Your task to perform on an android device: open a bookmark in the chrome app Image 0: 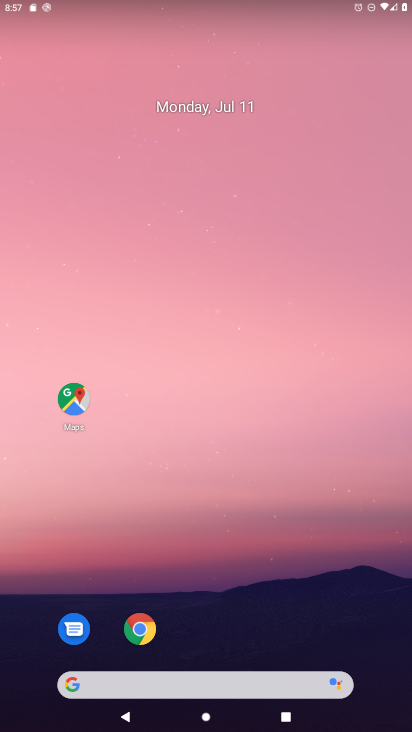
Step 0: press home button
Your task to perform on an android device: open a bookmark in the chrome app Image 1: 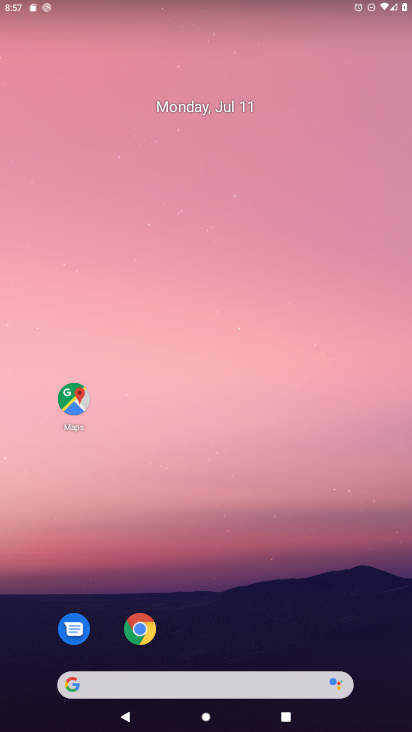
Step 1: drag from (233, 640) to (291, 87)
Your task to perform on an android device: open a bookmark in the chrome app Image 2: 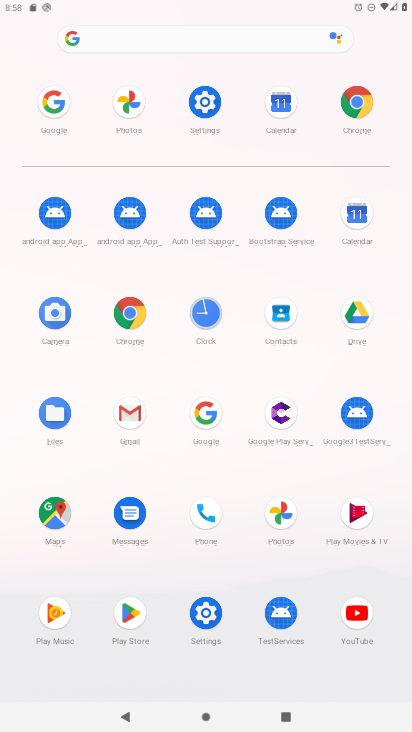
Step 2: click (359, 103)
Your task to perform on an android device: open a bookmark in the chrome app Image 3: 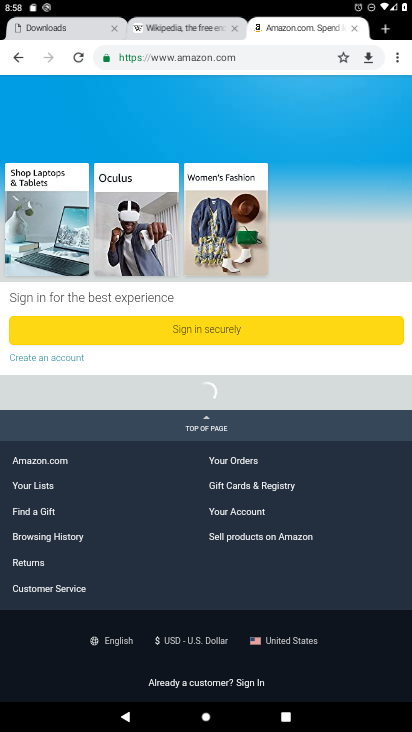
Step 3: click (393, 57)
Your task to perform on an android device: open a bookmark in the chrome app Image 4: 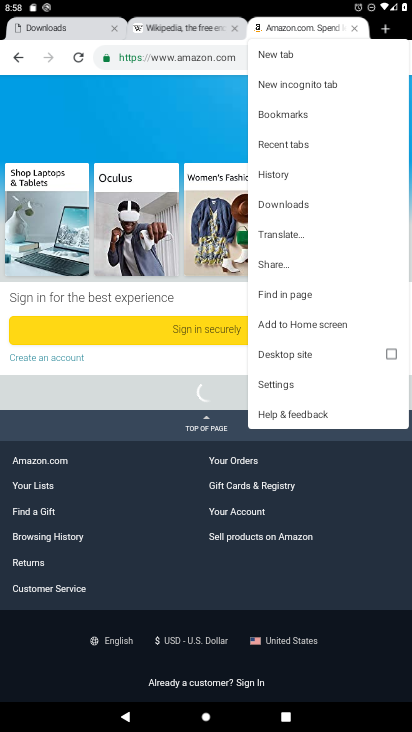
Step 4: click (286, 111)
Your task to perform on an android device: open a bookmark in the chrome app Image 5: 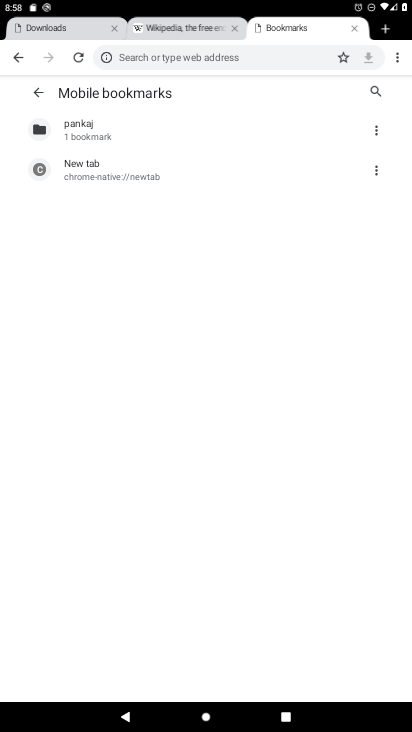
Step 5: task complete